Your task to perform on an android device: Open wifi settings Image 0: 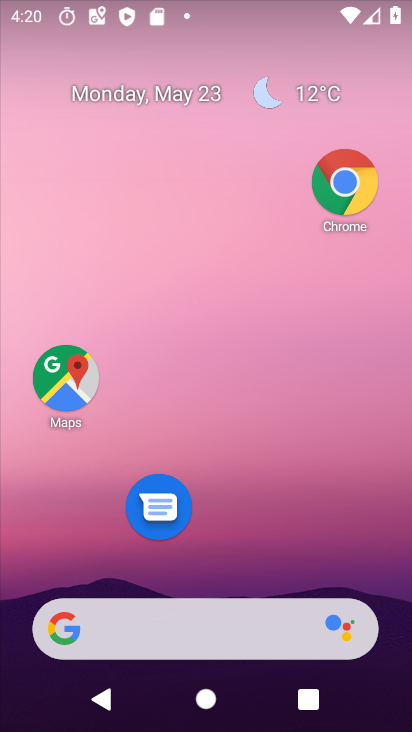
Step 0: drag from (207, 5) to (56, 689)
Your task to perform on an android device: Open wifi settings Image 1: 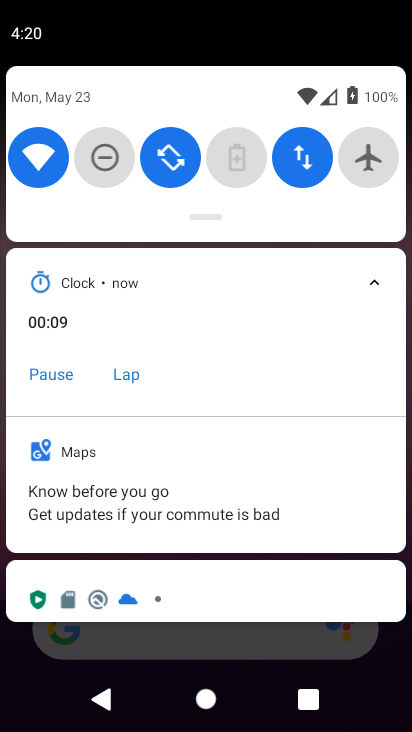
Step 1: click (49, 162)
Your task to perform on an android device: Open wifi settings Image 2: 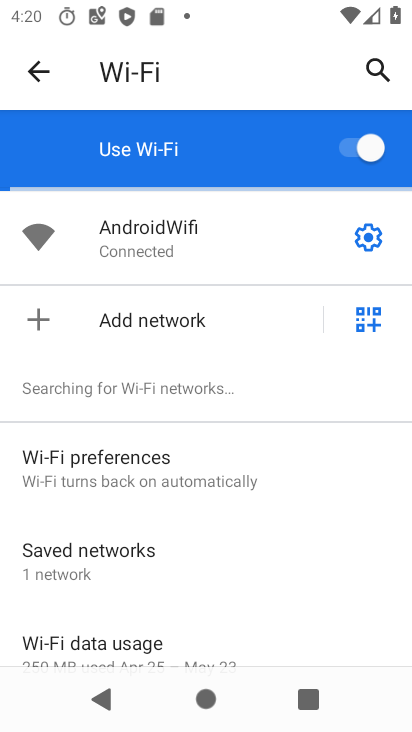
Step 2: task complete